Your task to perform on an android device: Open Amazon Image 0: 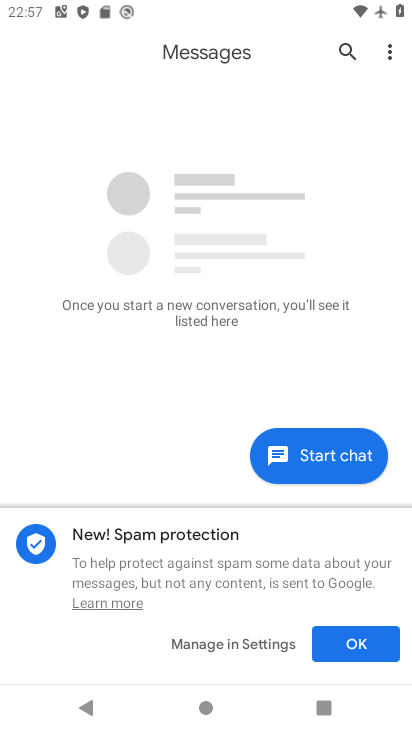
Step 0: press home button
Your task to perform on an android device: Open Amazon Image 1: 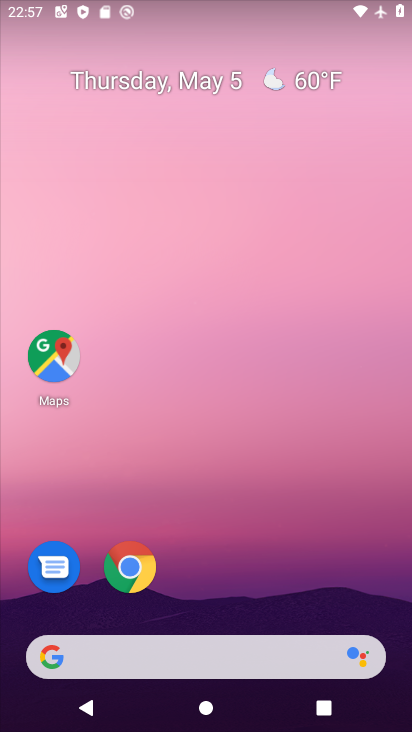
Step 1: click (119, 550)
Your task to perform on an android device: Open Amazon Image 2: 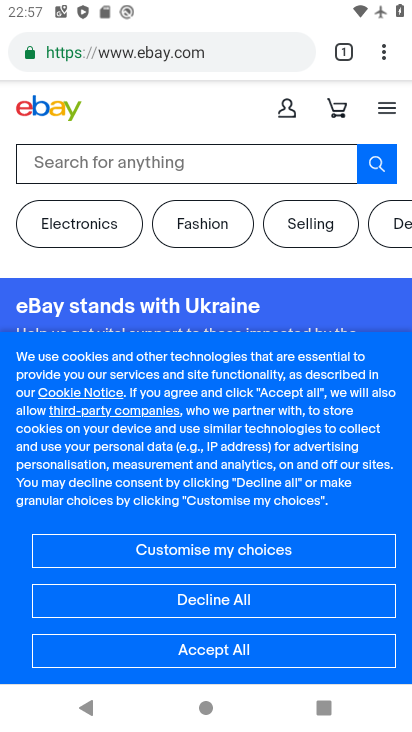
Step 2: click (346, 52)
Your task to perform on an android device: Open Amazon Image 3: 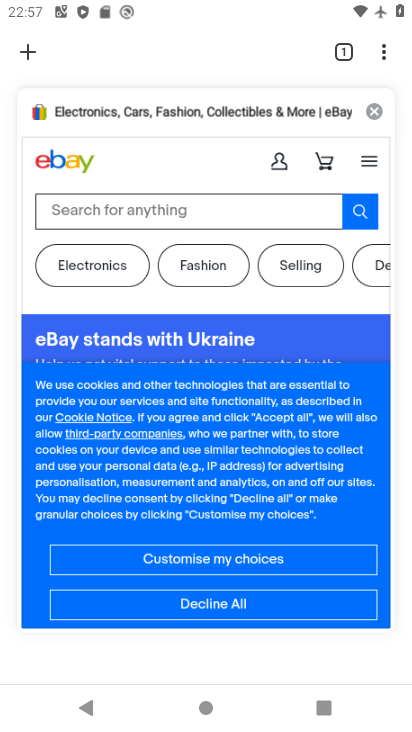
Step 3: click (30, 51)
Your task to perform on an android device: Open Amazon Image 4: 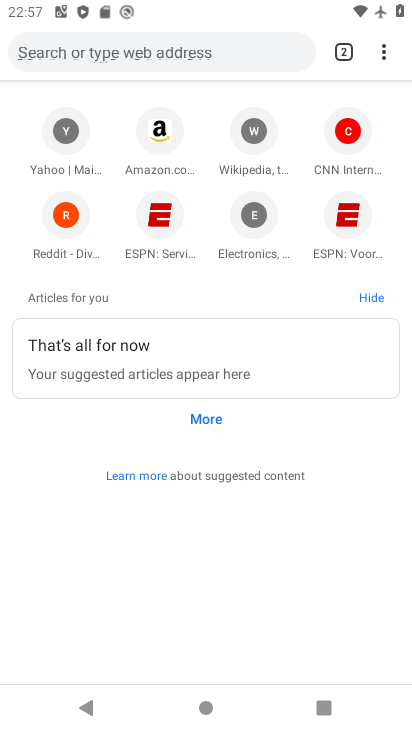
Step 4: click (167, 134)
Your task to perform on an android device: Open Amazon Image 5: 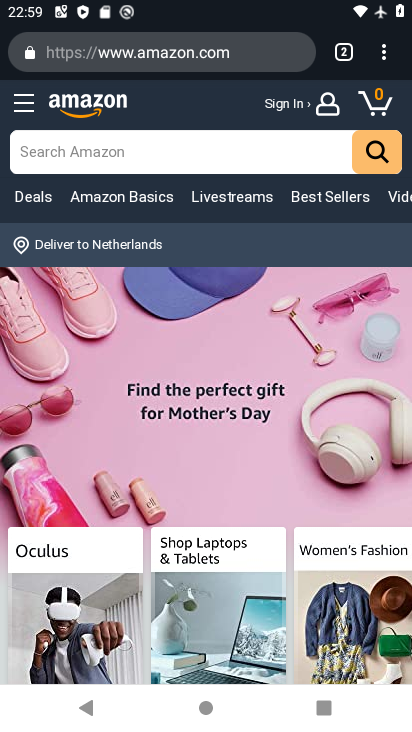
Step 5: task complete